Your task to perform on an android device: move a message to another label in the gmail app Image 0: 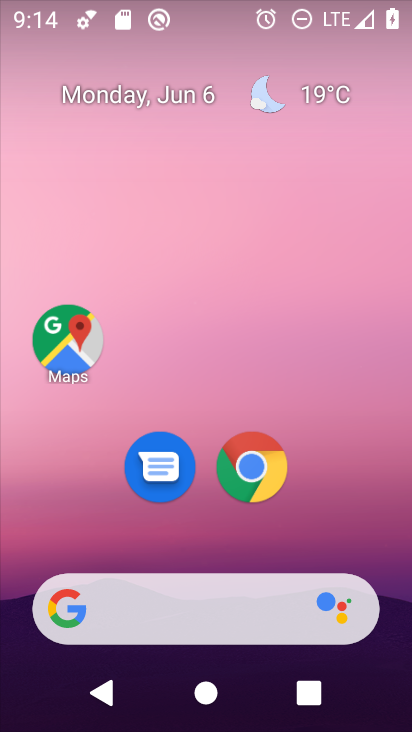
Step 0: drag from (354, 532) to (378, 121)
Your task to perform on an android device: move a message to another label in the gmail app Image 1: 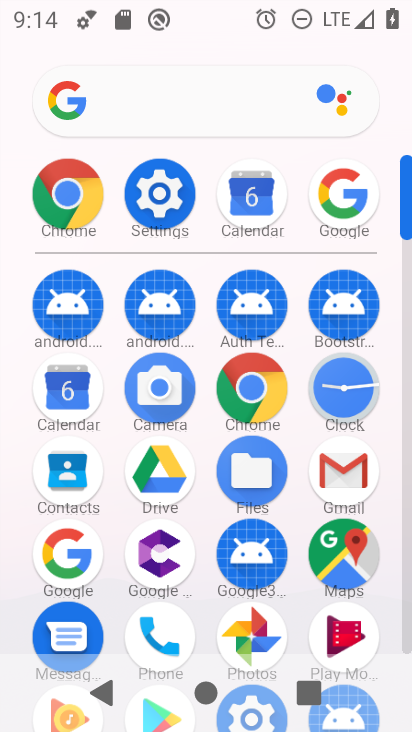
Step 1: click (355, 476)
Your task to perform on an android device: move a message to another label in the gmail app Image 2: 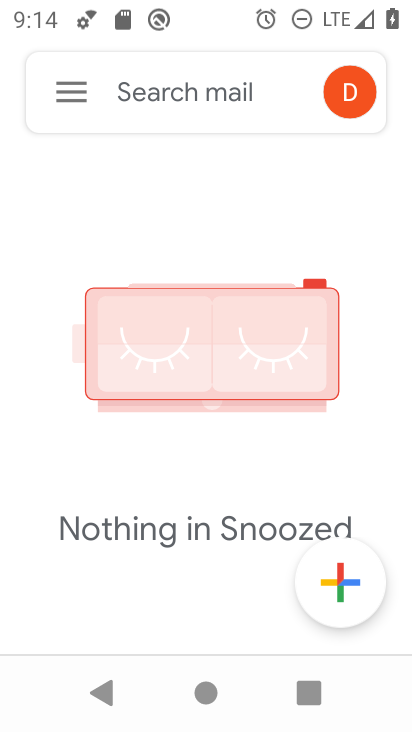
Step 2: click (75, 87)
Your task to perform on an android device: move a message to another label in the gmail app Image 3: 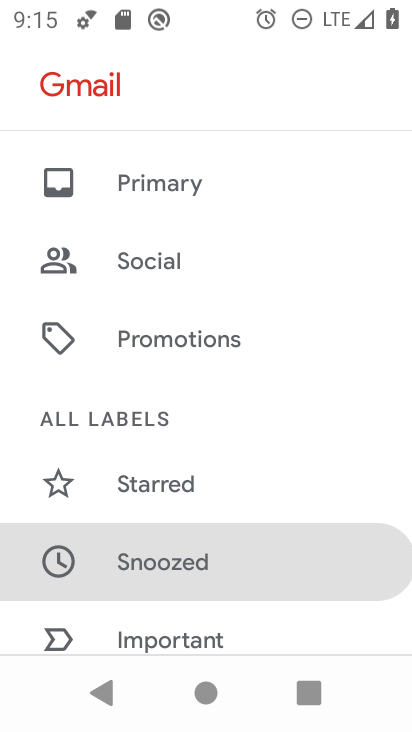
Step 3: drag from (290, 239) to (300, 467)
Your task to perform on an android device: move a message to another label in the gmail app Image 4: 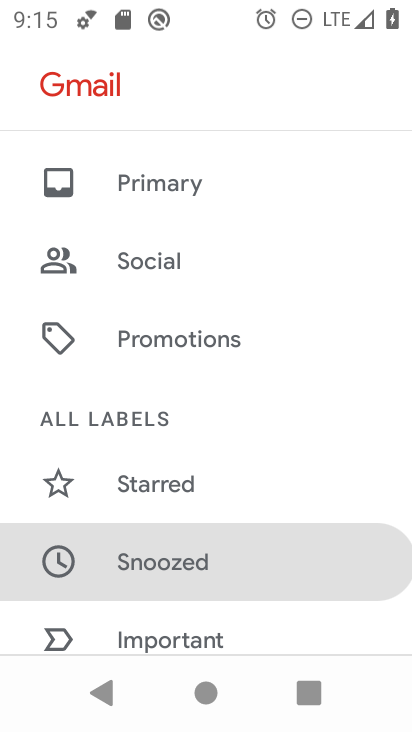
Step 4: click (233, 199)
Your task to perform on an android device: move a message to another label in the gmail app Image 5: 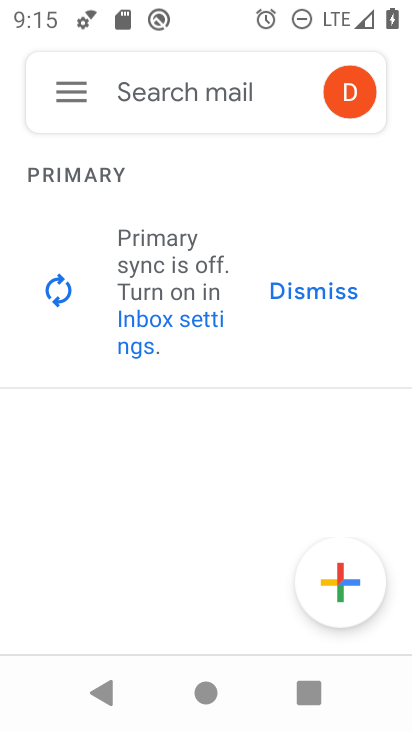
Step 5: task complete